Your task to perform on an android device: Open Youtube and go to "Your channel" Image 0: 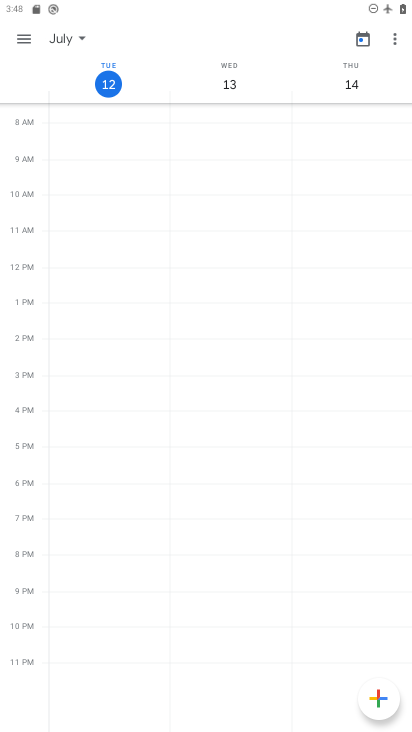
Step 0: press home button
Your task to perform on an android device: Open Youtube and go to "Your channel" Image 1: 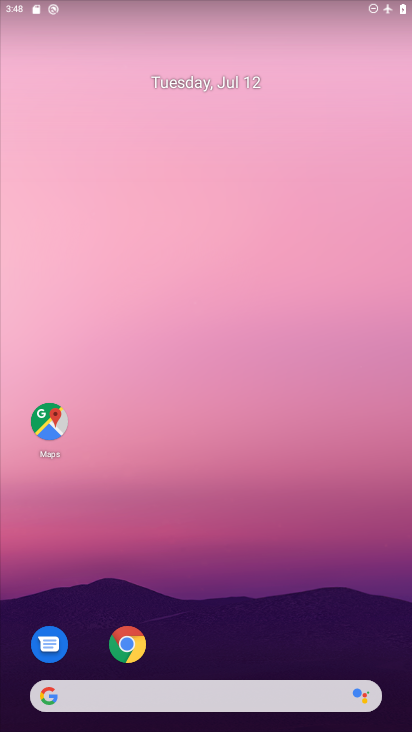
Step 1: drag from (308, 624) to (158, 138)
Your task to perform on an android device: Open Youtube and go to "Your channel" Image 2: 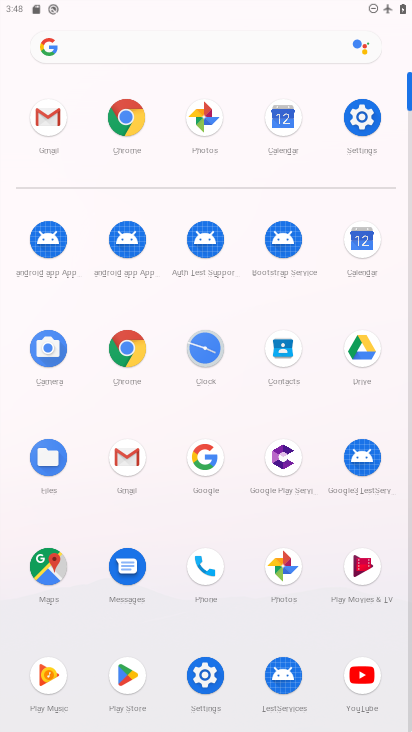
Step 2: click (368, 681)
Your task to perform on an android device: Open Youtube and go to "Your channel" Image 3: 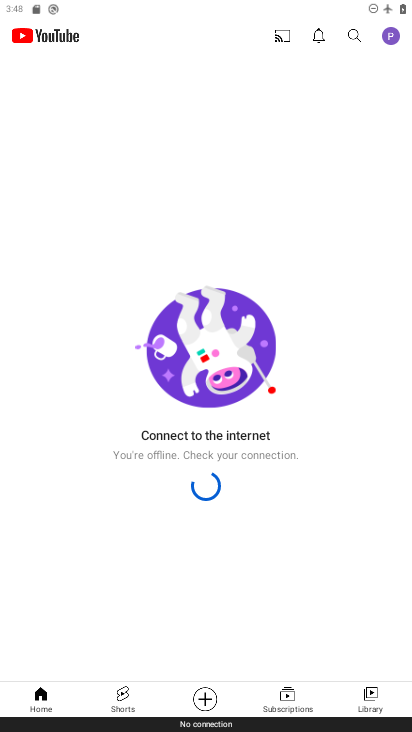
Step 3: task complete